Your task to perform on an android device: open chrome privacy settings Image 0: 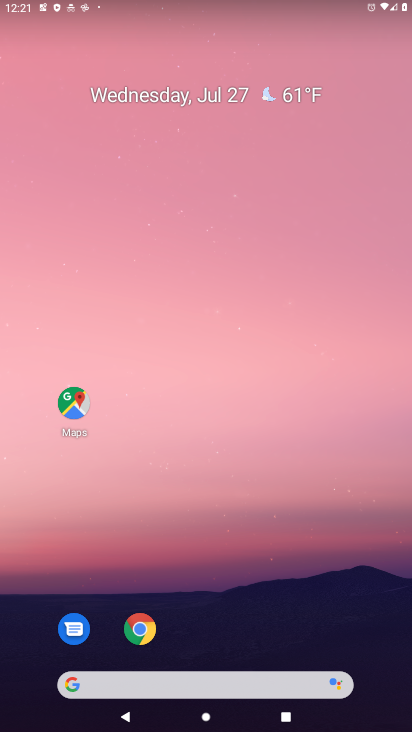
Step 0: click (145, 637)
Your task to perform on an android device: open chrome privacy settings Image 1: 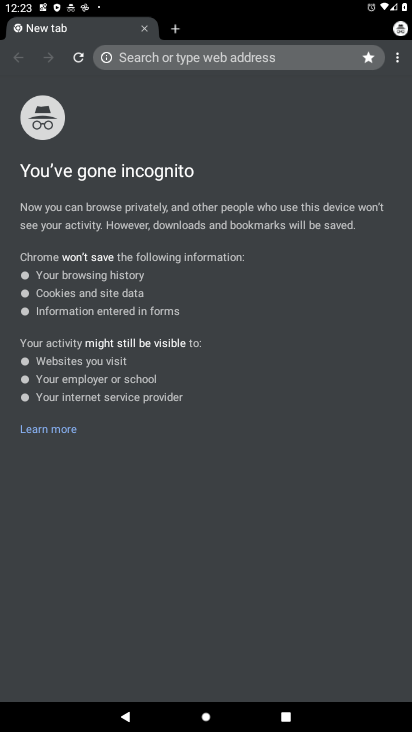
Step 1: click (400, 62)
Your task to perform on an android device: open chrome privacy settings Image 2: 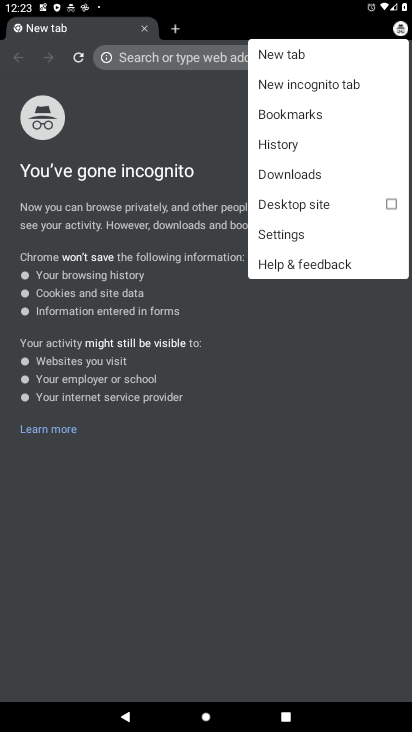
Step 2: click (293, 241)
Your task to perform on an android device: open chrome privacy settings Image 3: 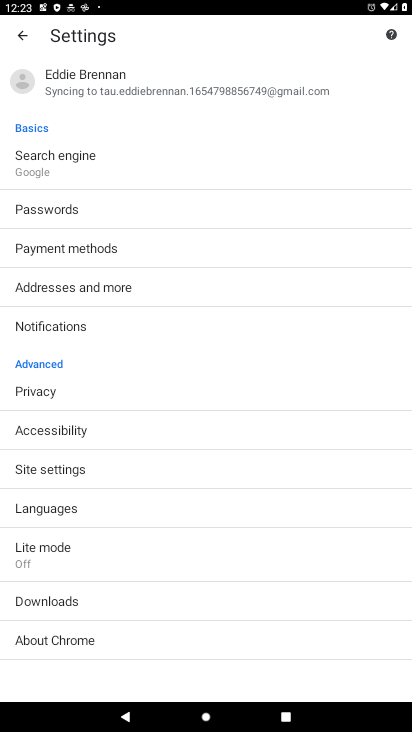
Step 3: click (77, 389)
Your task to perform on an android device: open chrome privacy settings Image 4: 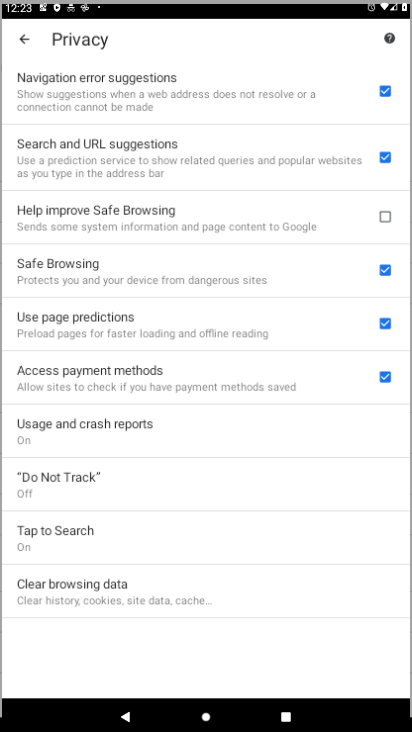
Step 4: task complete